Your task to perform on an android device: open chrome and create a bookmark for the current page Image 0: 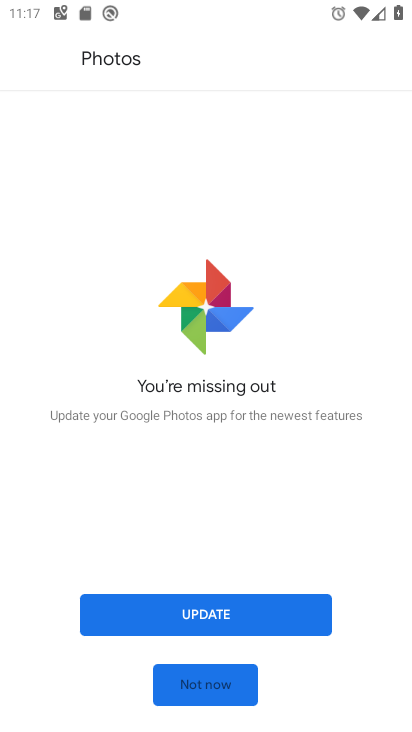
Step 0: press home button
Your task to perform on an android device: open chrome and create a bookmark for the current page Image 1: 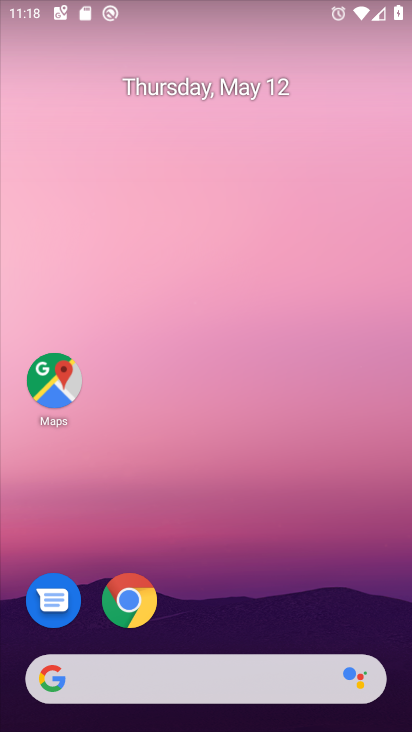
Step 1: click (143, 612)
Your task to perform on an android device: open chrome and create a bookmark for the current page Image 2: 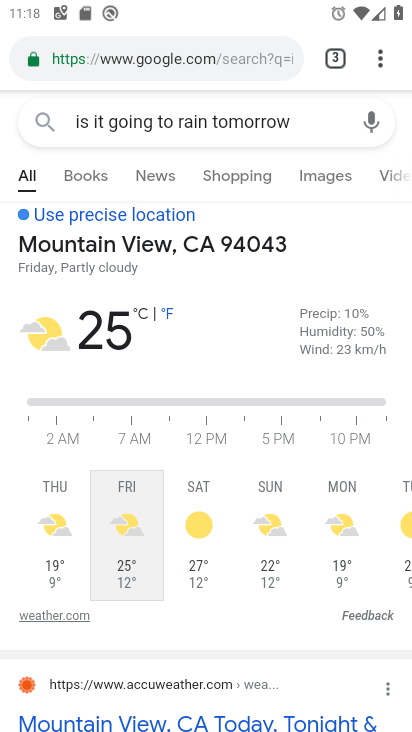
Step 2: click (381, 52)
Your task to perform on an android device: open chrome and create a bookmark for the current page Image 3: 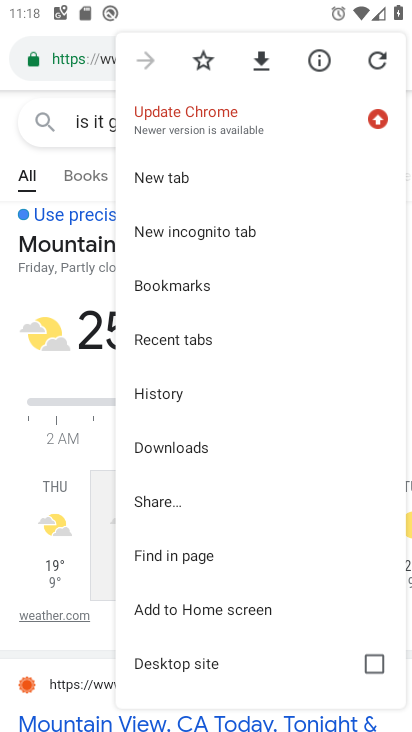
Step 3: click (201, 62)
Your task to perform on an android device: open chrome and create a bookmark for the current page Image 4: 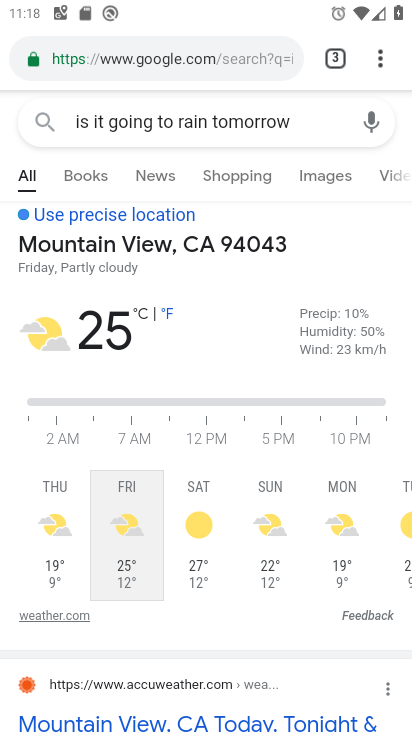
Step 4: task complete